Your task to perform on an android device: open wifi settings Image 0: 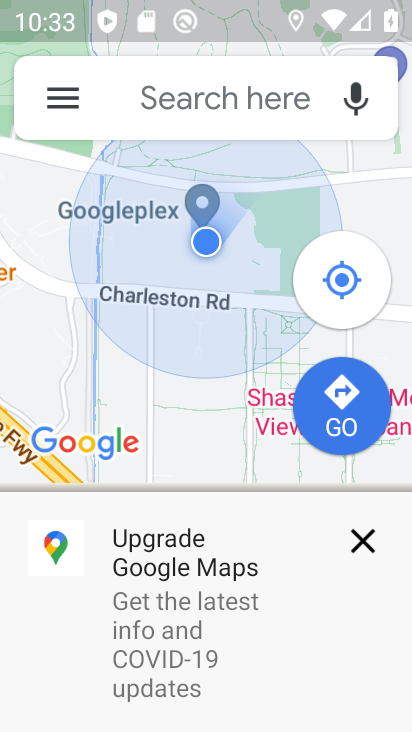
Step 0: press home button
Your task to perform on an android device: open wifi settings Image 1: 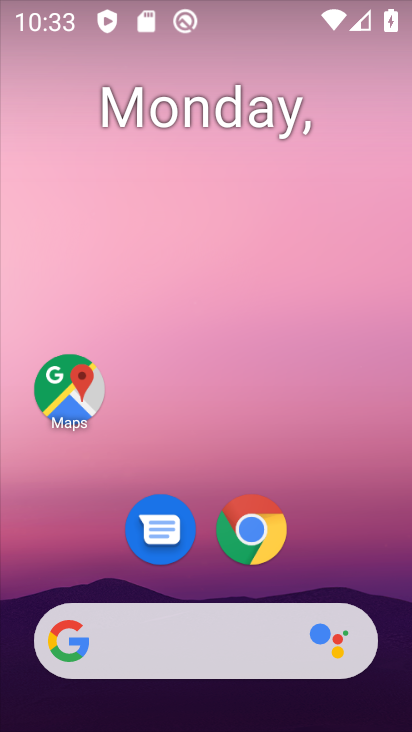
Step 1: drag from (224, 725) to (224, 77)
Your task to perform on an android device: open wifi settings Image 2: 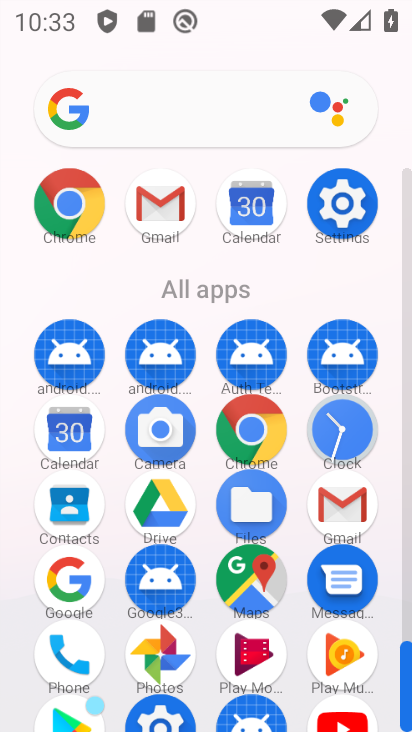
Step 2: click (342, 215)
Your task to perform on an android device: open wifi settings Image 3: 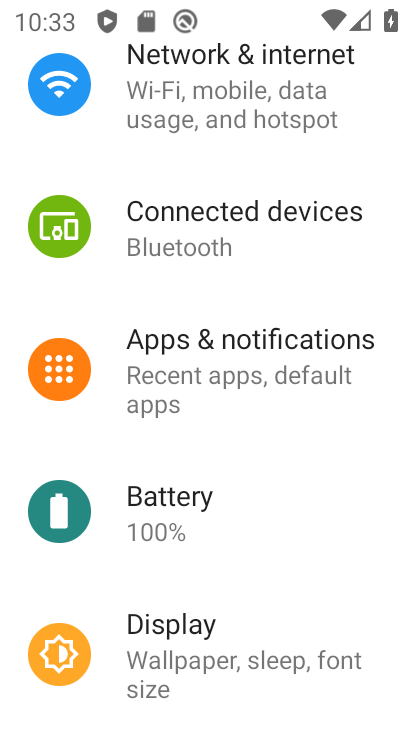
Step 3: drag from (256, 143) to (267, 487)
Your task to perform on an android device: open wifi settings Image 4: 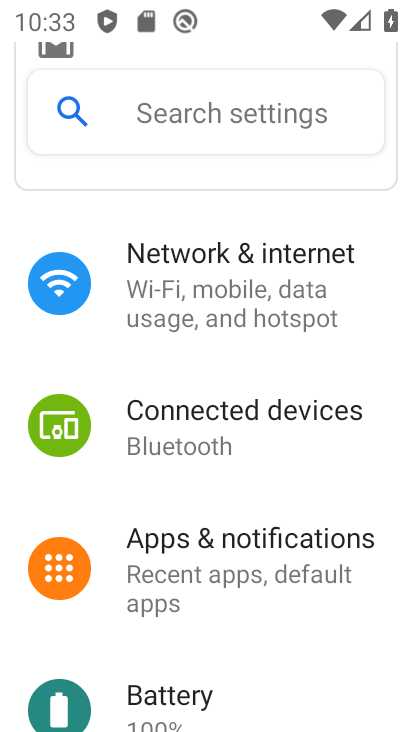
Step 4: click (202, 262)
Your task to perform on an android device: open wifi settings Image 5: 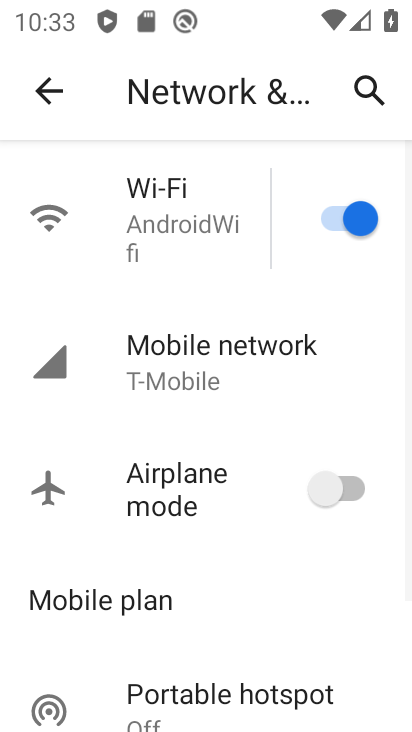
Step 5: click (157, 199)
Your task to perform on an android device: open wifi settings Image 6: 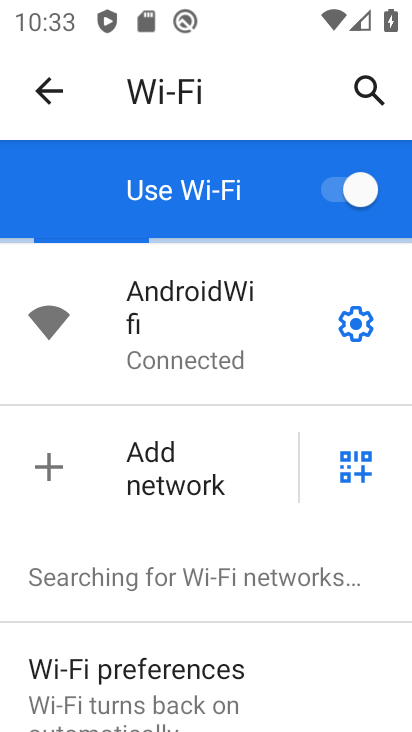
Step 6: task complete